Your task to perform on an android device: Open calendar and show me the second week of next month Image 0: 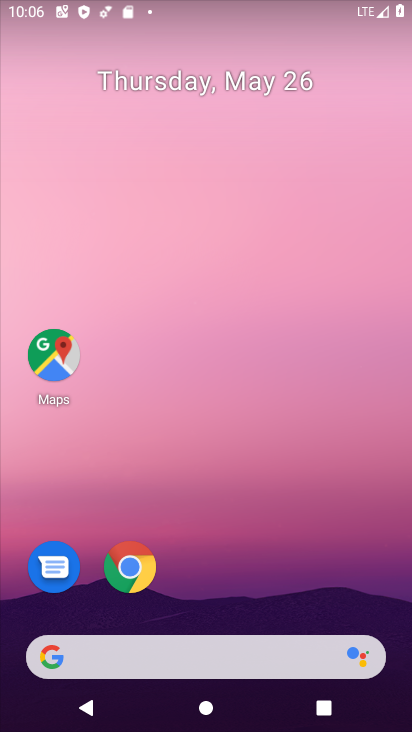
Step 0: drag from (149, 703) to (133, 6)
Your task to perform on an android device: Open calendar and show me the second week of next month Image 1: 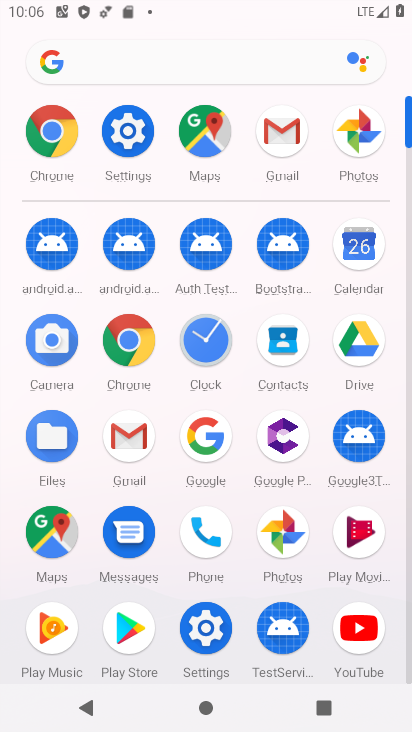
Step 1: click (352, 248)
Your task to perform on an android device: Open calendar and show me the second week of next month Image 2: 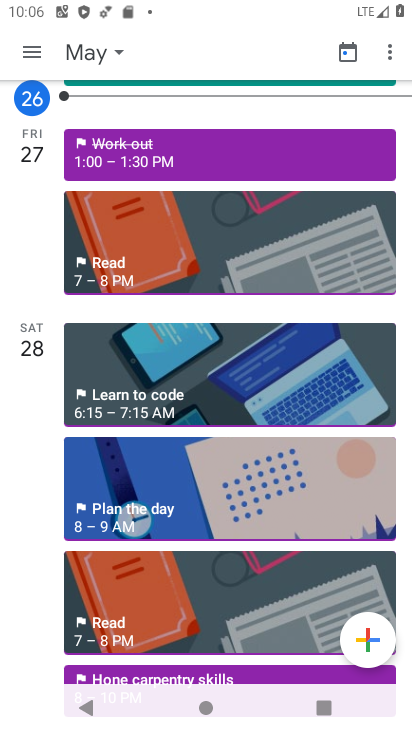
Step 2: click (76, 54)
Your task to perform on an android device: Open calendar and show me the second week of next month Image 3: 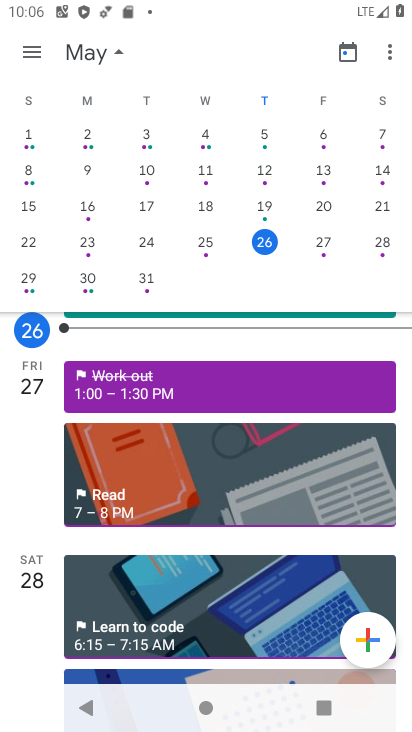
Step 3: drag from (337, 188) to (31, 214)
Your task to perform on an android device: Open calendar and show me the second week of next month Image 4: 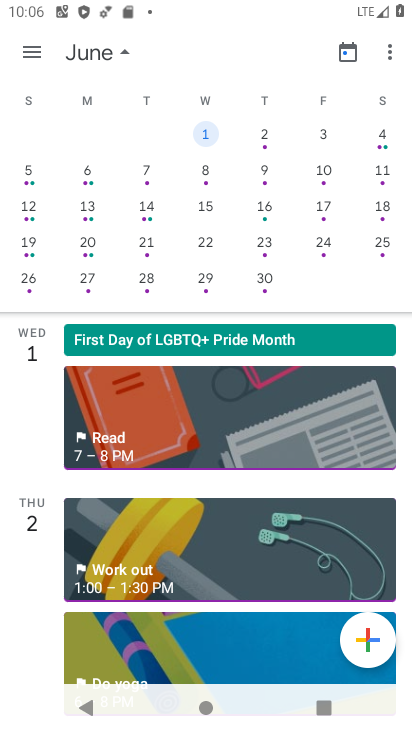
Step 4: click (23, 170)
Your task to perform on an android device: Open calendar and show me the second week of next month Image 5: 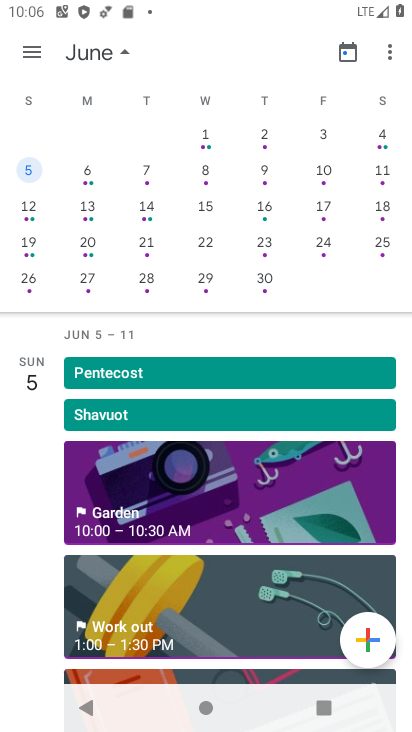
Step 5: task complete